Your task to perform on an android device: Go to ESPN.com Image 0: 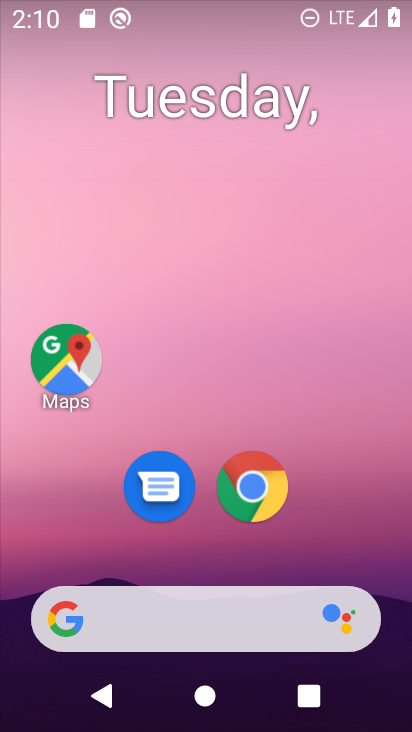
Step 0: drag from (193, 568) to (193, 81)
Your task to perform on an android device: Go to ESPN.com Image 1: 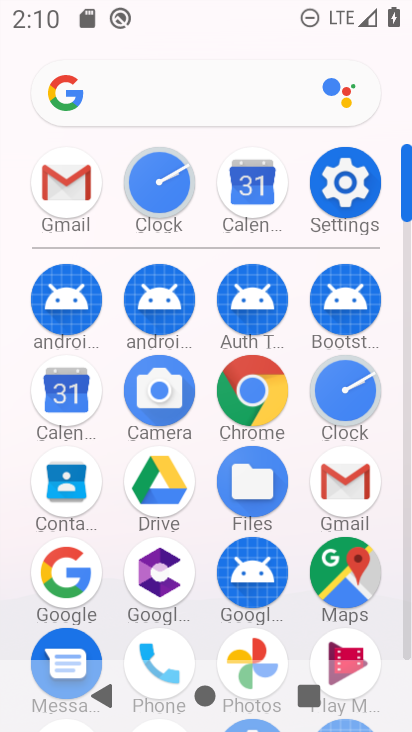
Step 1: click (171, 159)
Your task to perform on an android device: Go to ESPN.com Image 2: 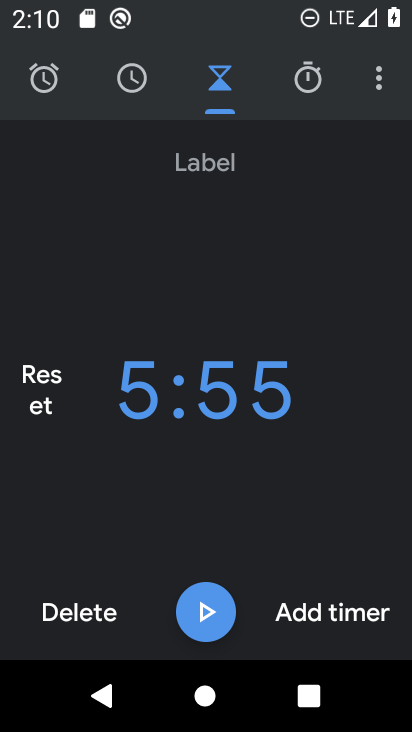
Step 2: click (262, 389)
Your task to perform on an android device: Go to ESPN.com Image 3: 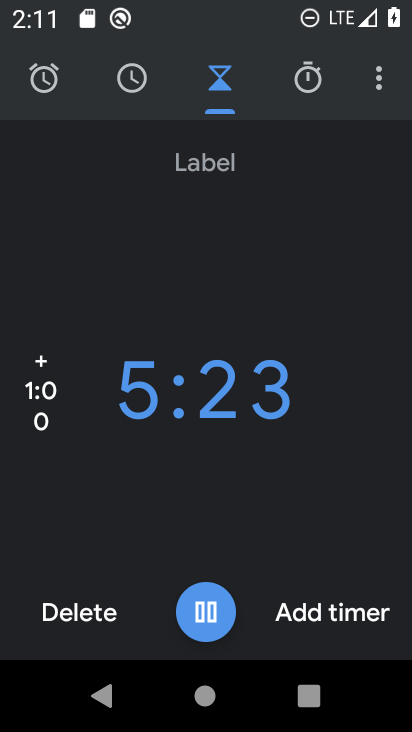
Step 3: press home button
Your task to perform on an android device: Go to ESPN.com Image 4: 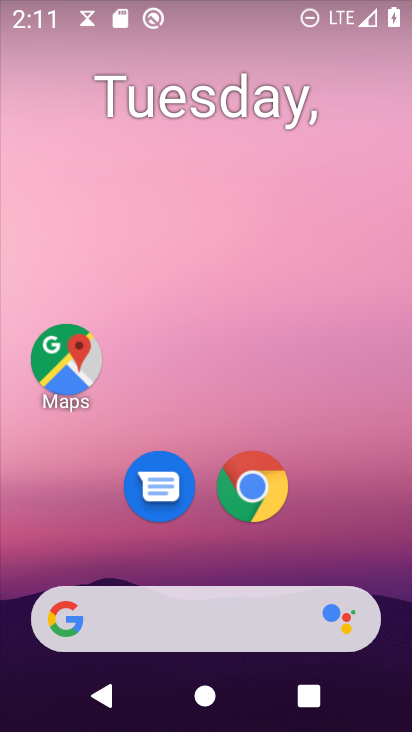
Step 4: drag from (262, 555) to (218, 171)
Your task to perform on an android device: Go to ESPN.com Image 5: 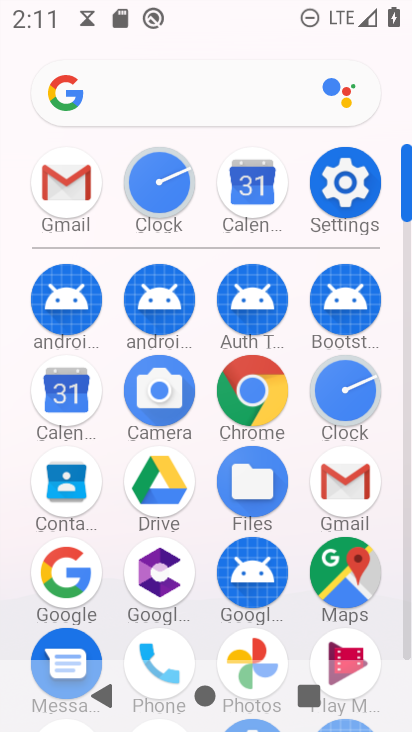
Step 5: click (235, 404)
Your task to perform on an android device: Go to ESPN.com Image 6: 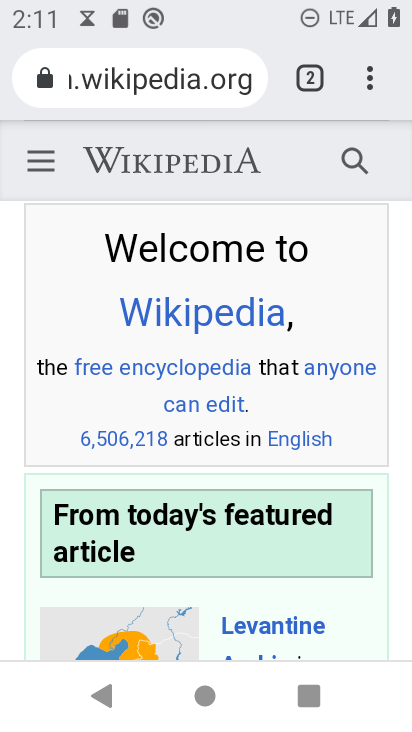
Step 6: click (312, 85)
Your task to perform on an android device: Go to ESPN.com Image 7: 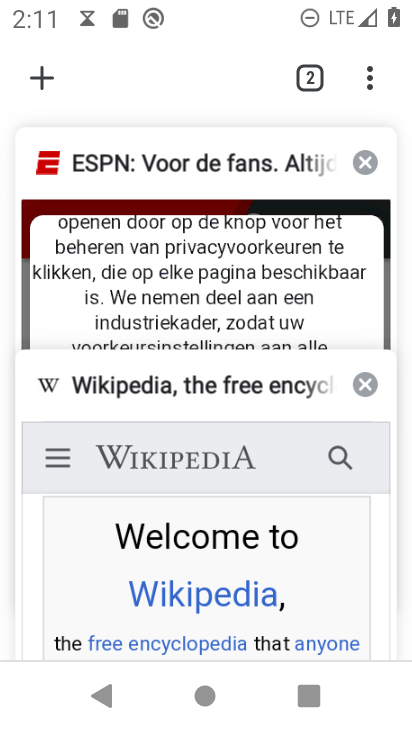
Step 7: click (184, 205)
Your task to perform on an android device: Go to ESPN.com Image 8: 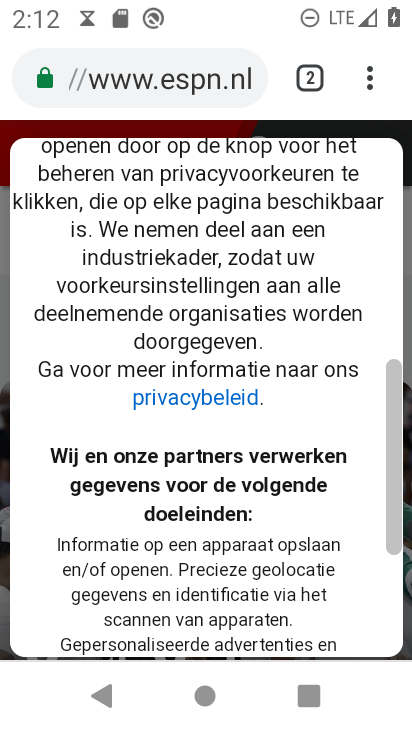
Step 8: task complete